Your task to perform on an android device: Is it going to rain today? Image 0: 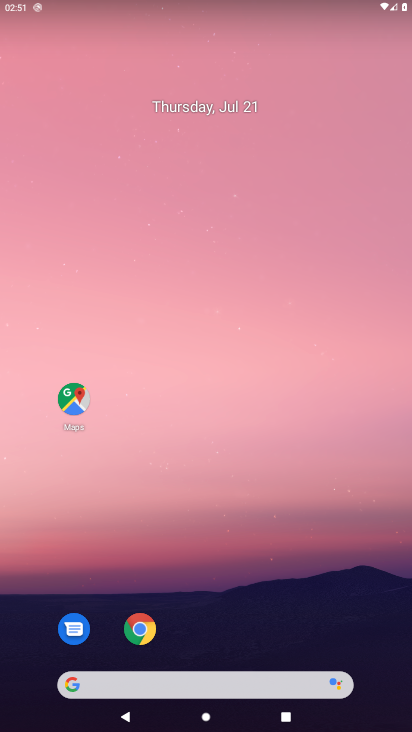
Step 0: click (87, 675)
Your task to perform on an android device: Is it going to rain today? Image 1: 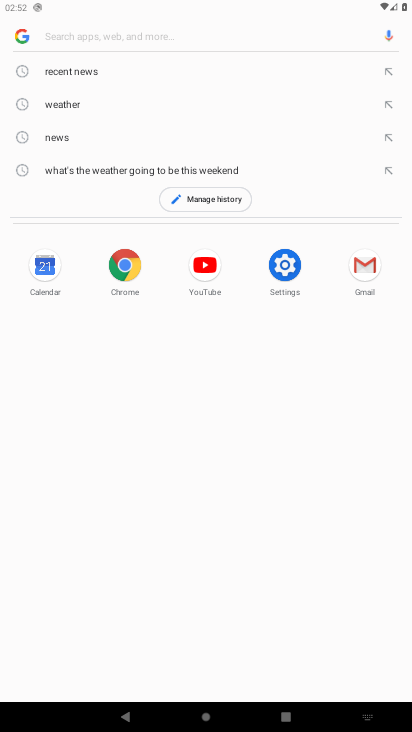
Step 1: type "Is it going to rain today?"
Your task to perform on an android device: Is it going to rain today? Image 2: 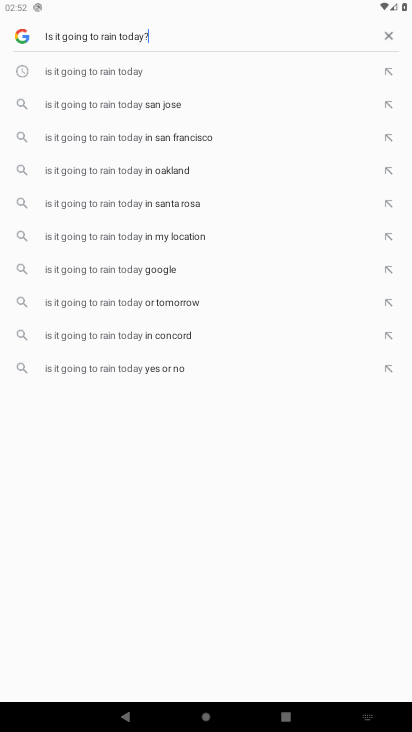
Step 2: type ""
Your task to perform on an android device: Is it going to rain today? Image 3: 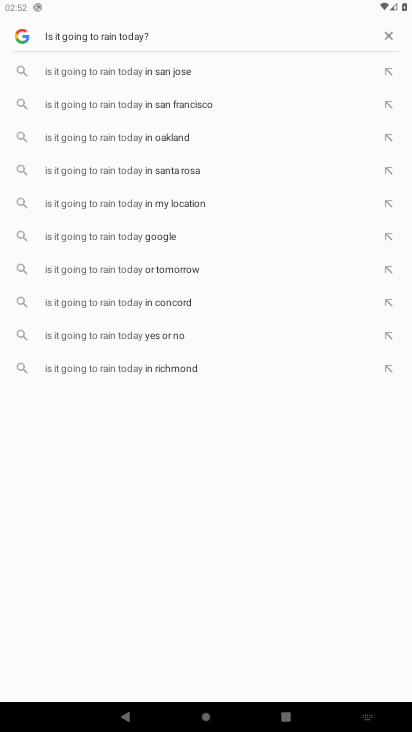
Step 3: type ""
Your task to perform on an android device: Is it going to rain today? Image 4: 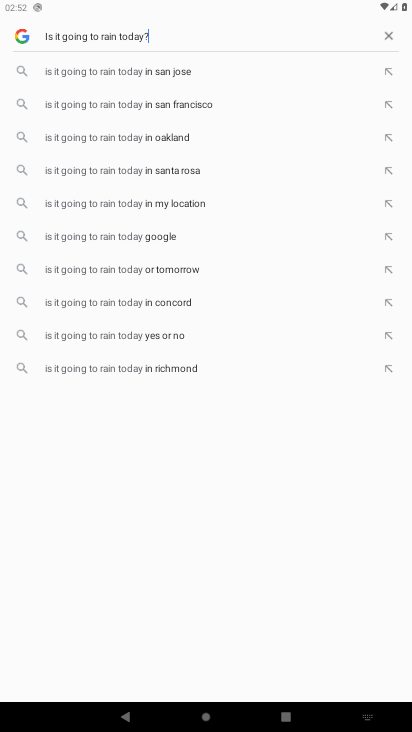
Step 4: type ""
Your task to perform on an android device: Is it going to rain today? Image 5: 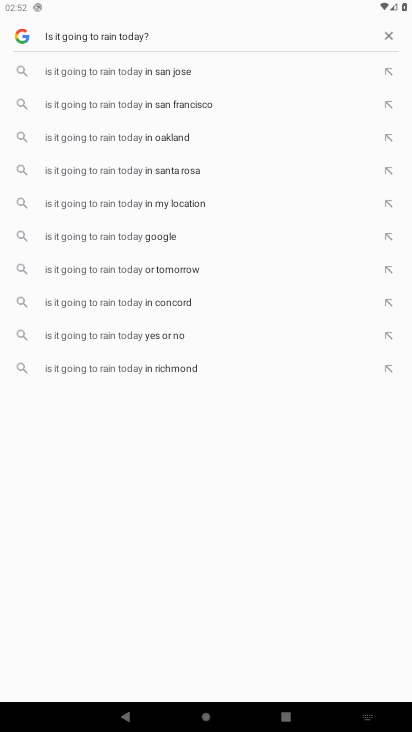
Step 5: task complete